Your task to perform on an android device: toggle notification dots Image 0: 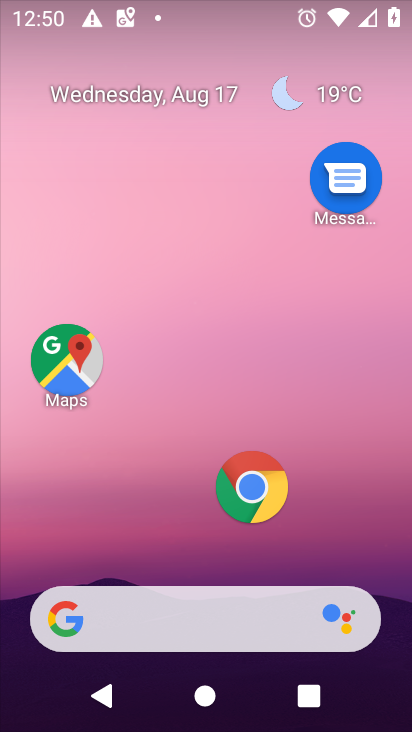
Step 0: drag from (204, 504) to (266, 33)
Your task to perform on an android device: toggle notification dots Image 1: 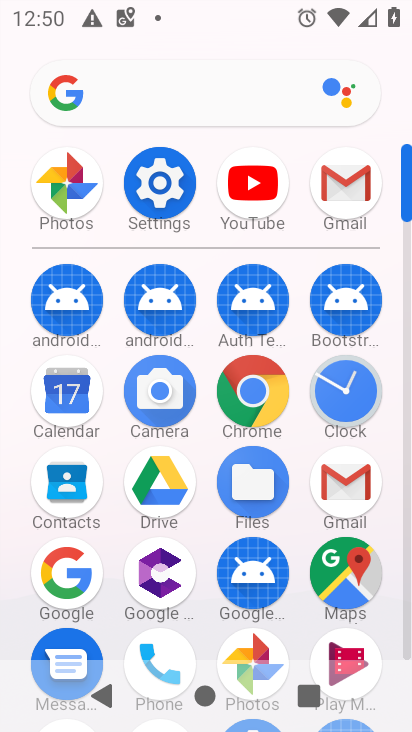
Step 1: click (158, 200)
Your task to perform on an android device: toggle notification dots Image 2: 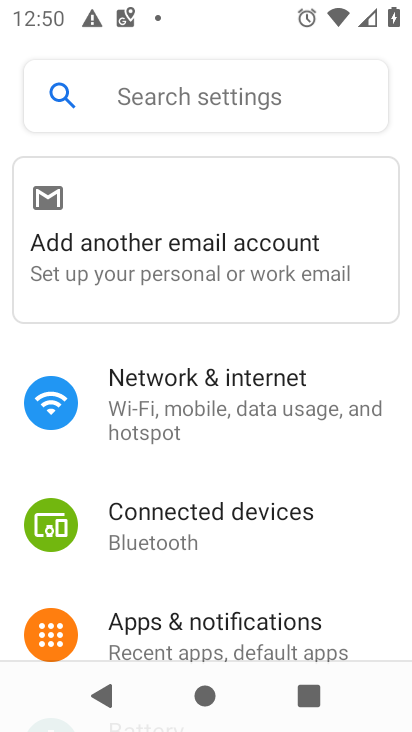
Step 2: click (239, 639)
Your task to perform on an android device: toggle notification dots Image 3: 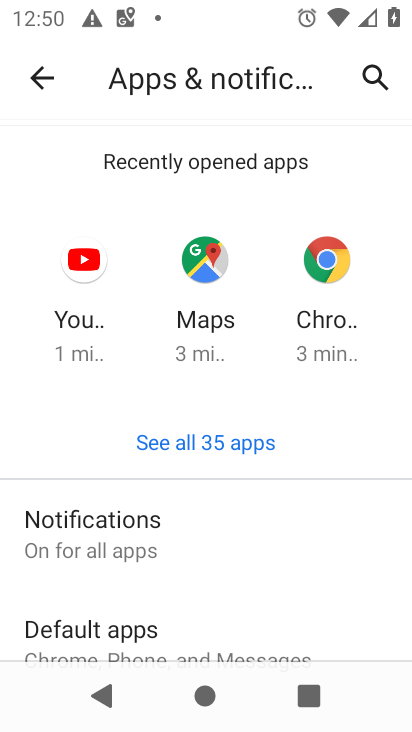
Step 3: click (114, 519)
Your task to perform on an android device: toggle notification dots Image 4: 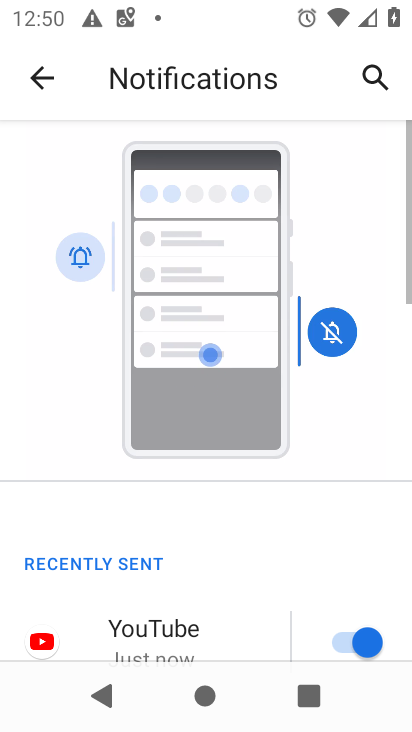
Step 4: drag from (167, 601) to (213, 68)
Your task to perform on an android device: toggle notification dots Image 5: 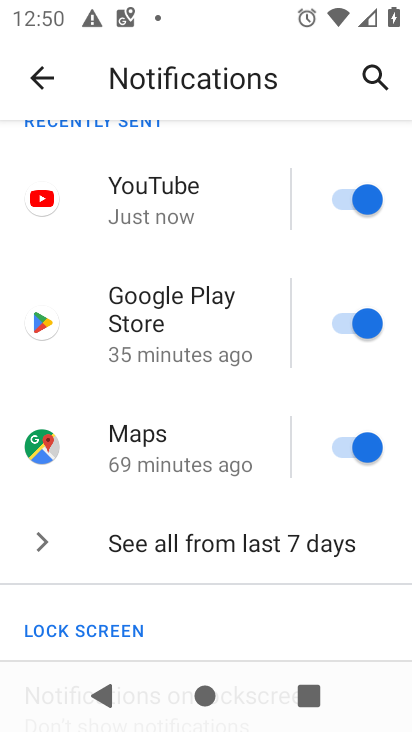
Step 5: drag from (173, 614) to (259, 69)
Your task to perform on an android device: toggle notification dots Image 6: 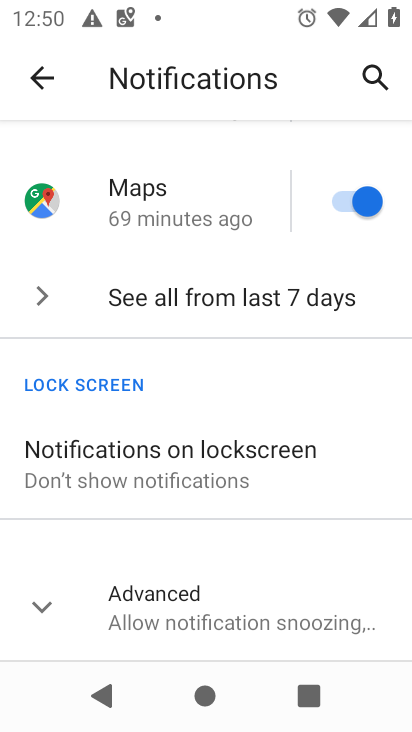
Step 6: click (166, 608)
Your task to perform on an android device: toggle notification dots Image 7: 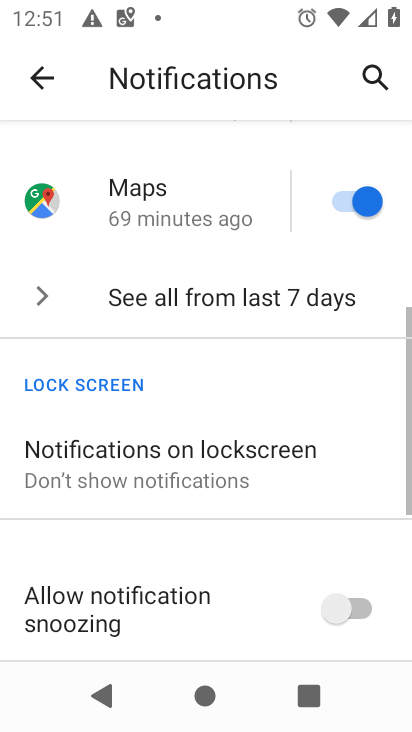
Step 7: drag from (206, 552) to (297, 121)
Your task to perform on an android device: toggle notification dots Image 8: 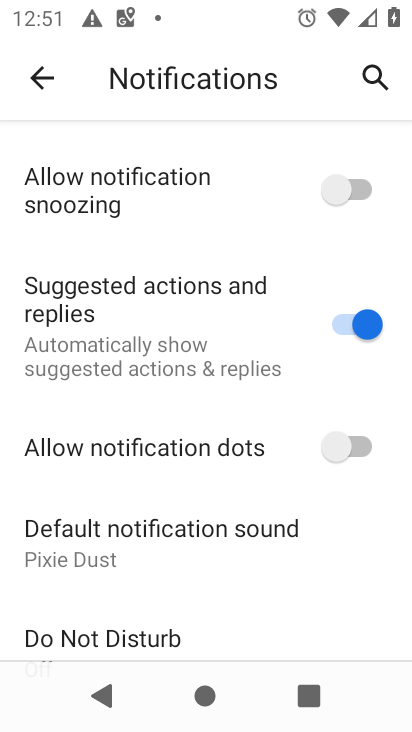
Step 8: click (336, 437)
Your task to perform on an android device: toggle notification dots Image 9: 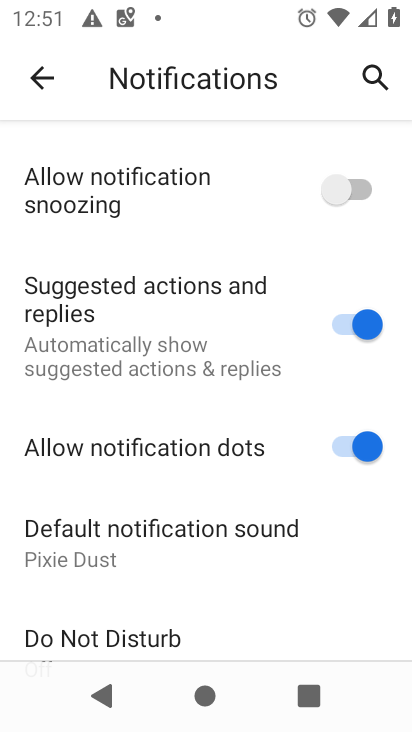
Step 9: task complete